Your task to perform on an android device: see tabs open on other devices in the chrome app Image 0: 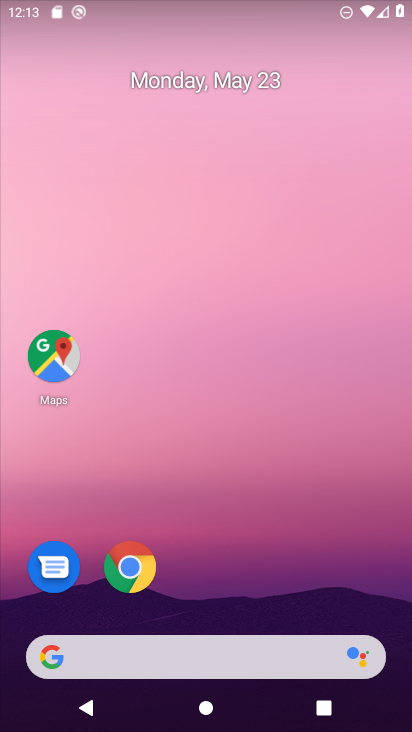
Step 0: click (139, 563)
Your task to perform on an android device: see tabs open on other devices in the chrome app Image 1: 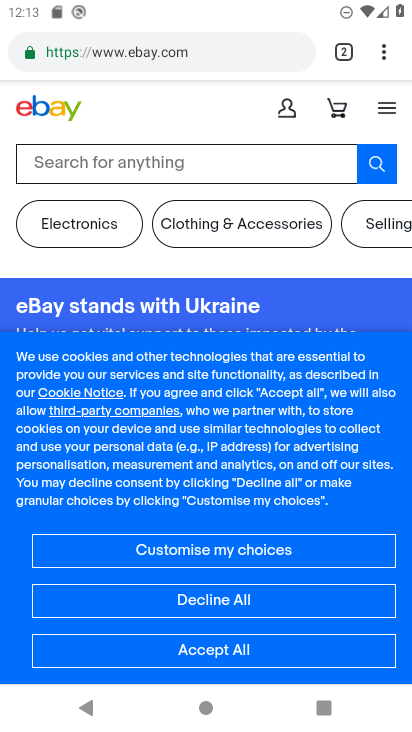
Step 1: click (393, 61)
Your task to perform on an android device: see tabs open on other devices in the chrome app Image 2: 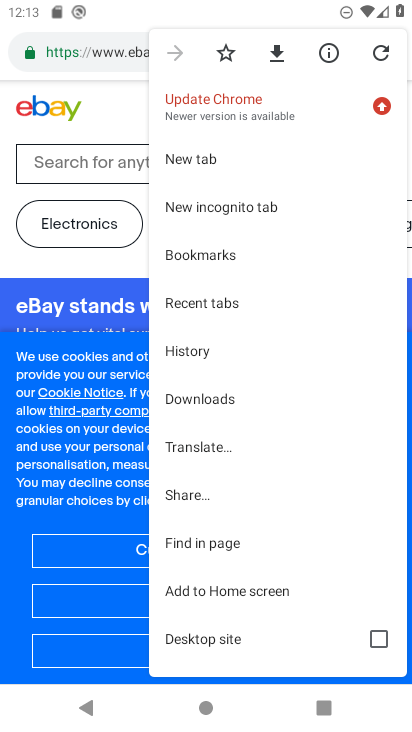
Step 2: click (217, 305)
Your task to perform on an android device: see tabs open on other devices in the chrome app Image 3: 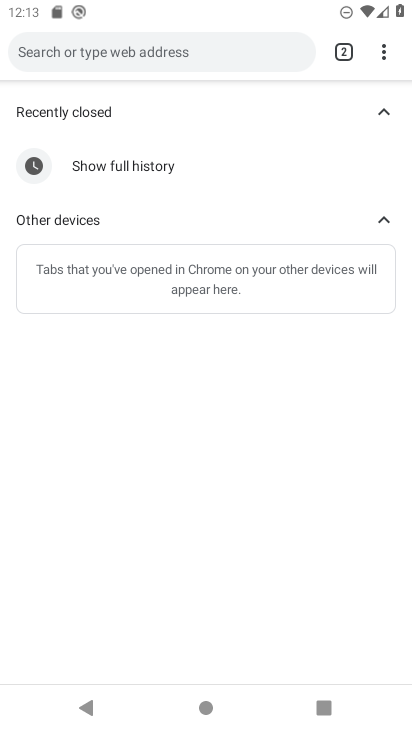
Step 3: task complete